Your task to perform on an android device: Search for Italian restaurants on Maps Image 0: 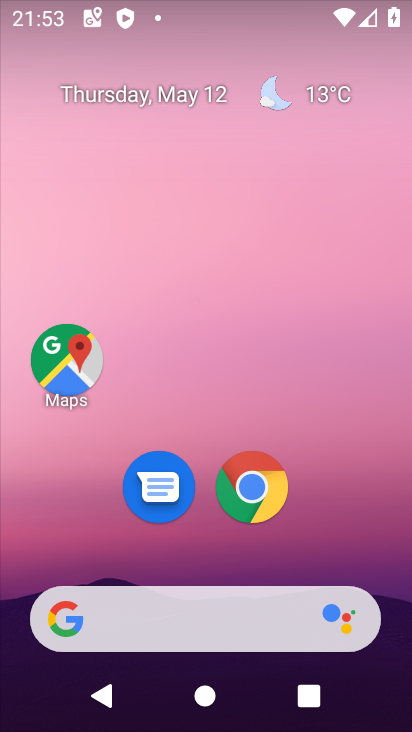
Step 0: click (55, 353)
Your task to perform on an android device: Search for Italian restaurants on Maps Image 1: 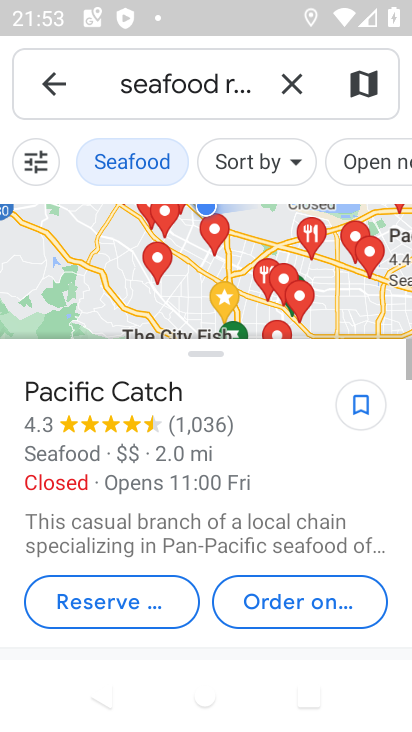
Step 1: click (304, 90)
Your task to perform on an android device: Search for Italian restaurants on Maps Image 2: 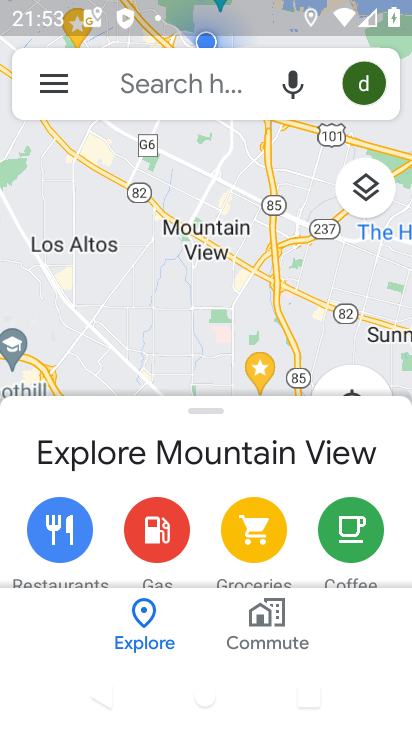
Step 2: click (237, 80)
Your task to perform on an android device: Search for Italian restaurants on Maps Image 3: 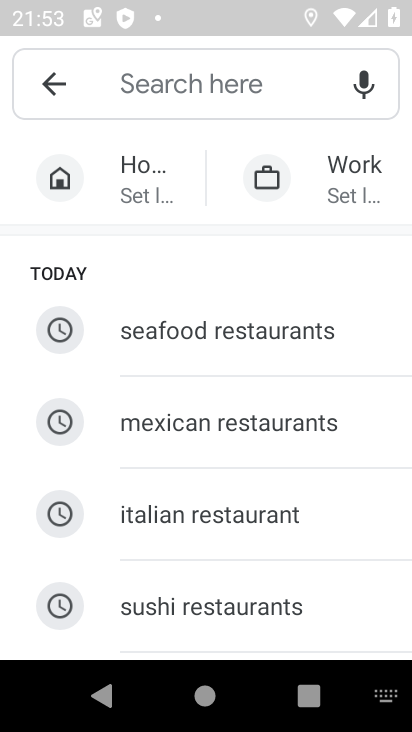
Step 3: click (265, 511)
Your task to perform on an android device: Search for Italian restaurants on Maps Image 4: 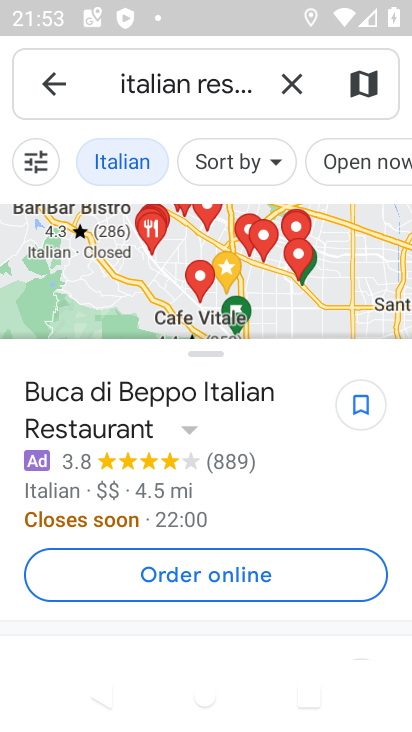
Step 4: task complete